Your task to perform on an android device: open wifi settings Image 0: 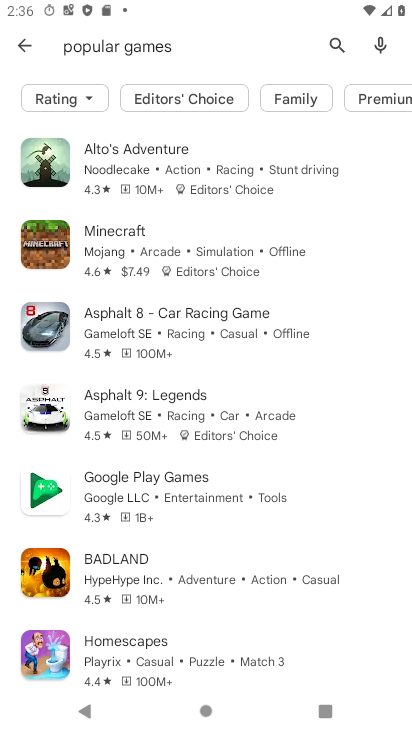
Step 0: press home button
Your task to perform on an android device: open wifi settings Image 1: 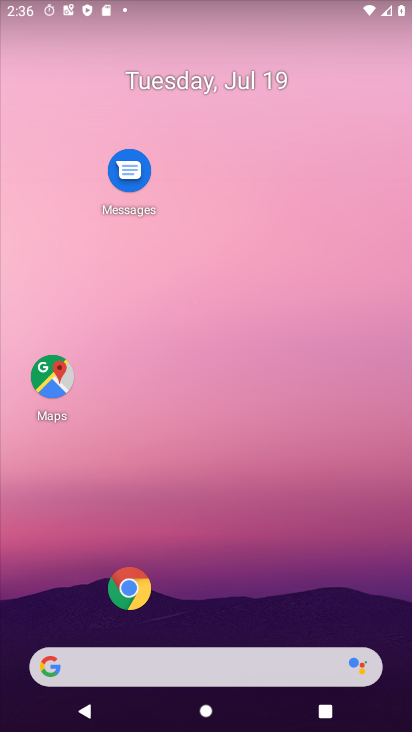
Step 1: drag from (48, 707) to (193, 156)
Your task to perform on an android device: open wifi settings Image 2: 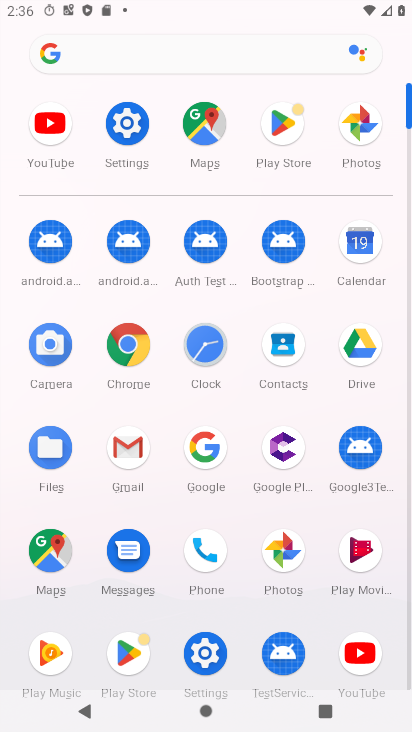
Step 2: click (193, 661)
Your task to perform on an android device: open wifi settings Image 3: 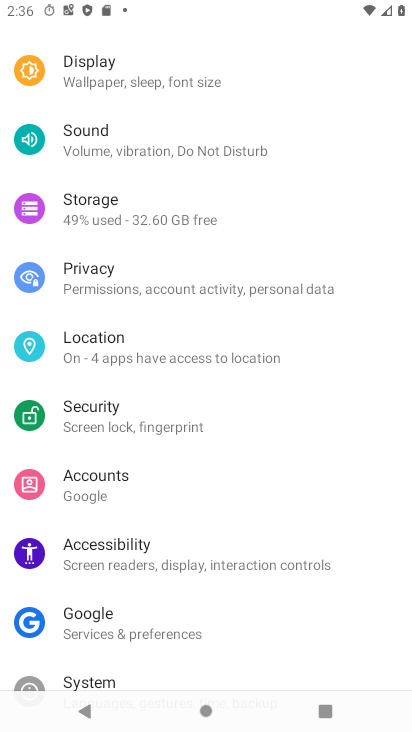
Step 3: drag from (189, 65) to (206, 438)
Your task to perform on an android device: open wifi settings Image 4: 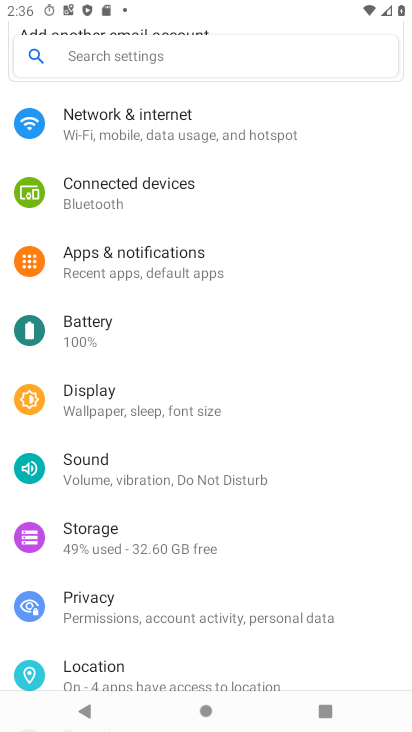
Step 4: click (158, 105)
Your task to perform on an android device: open wifi settings Image 5: 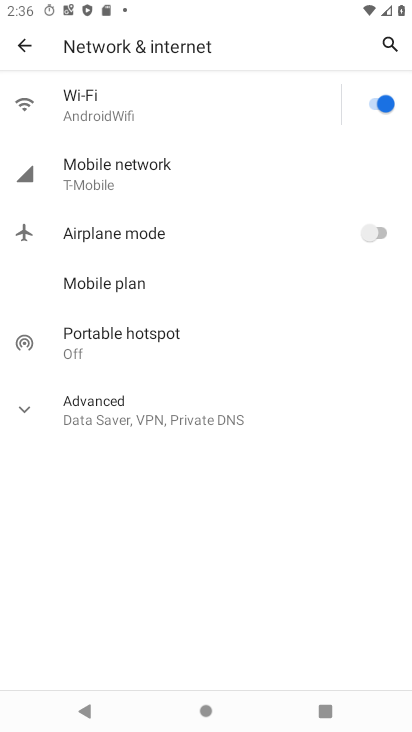
Step 5: task complete